Your task to perform on an android device: move an email to a new category in the gmail app Image 0: 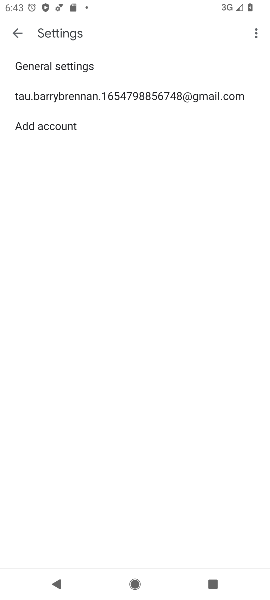
Step 0: press home button
Your task to perform on an android device: move an email to a new category in the gmail app Image 1: 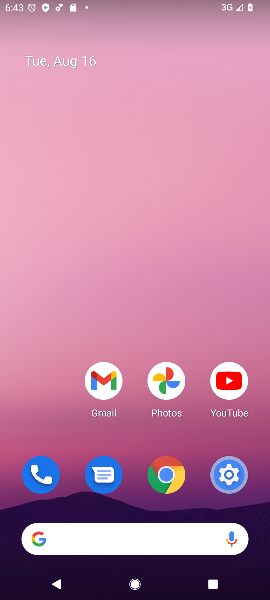
Step 1: drag from (195, 486) to (80, 57)
Your task to perform on an android device: move an email to a new category in the gmail app Image 2: 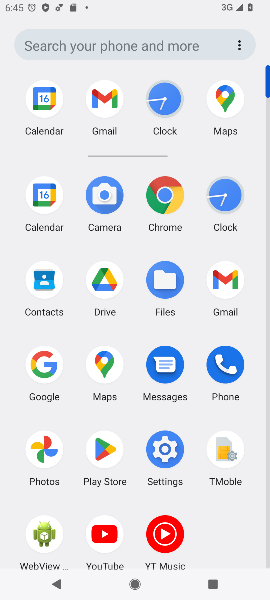
Step 2: click (225, 272)
Your task to perform on an android device: move an email to a new category in the gmail app Image 3: 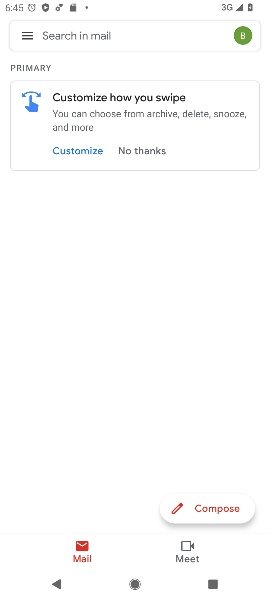
Step 3: task complete